Your task to perform on an android device: Open the map Image 0: 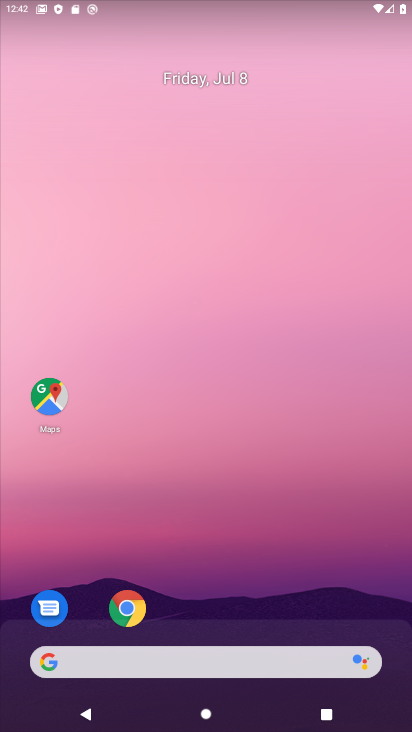
Step 0: click (51, 399)
Your task to perform on an android device: Open the map Image 1: 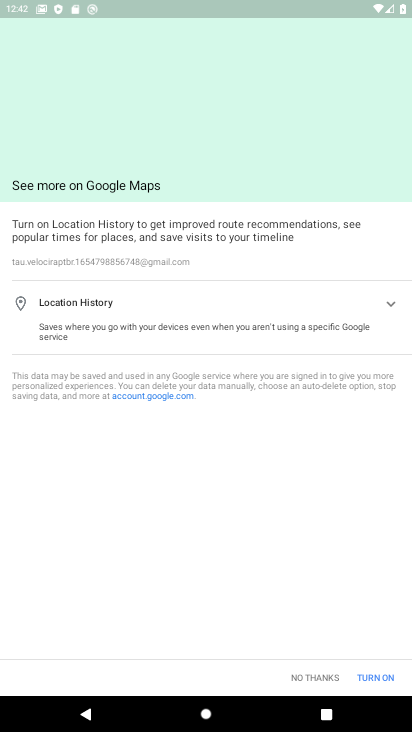
Step 1: press home button
Your task to perform on an android device: Open the map Image 2: 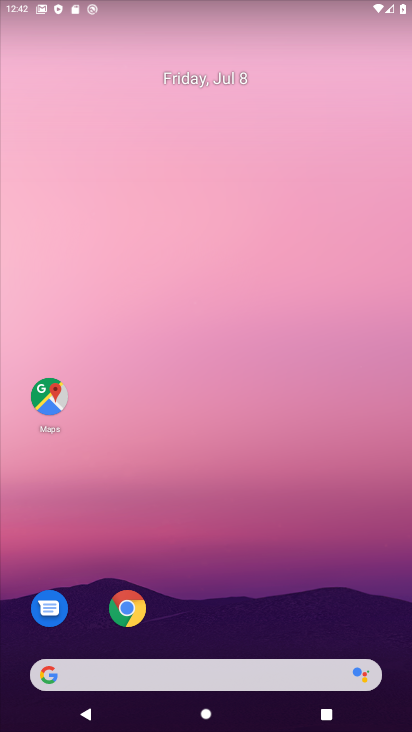
Step 2: click (48, 396)
Your task to perform on an android device: Open the map Image 3: 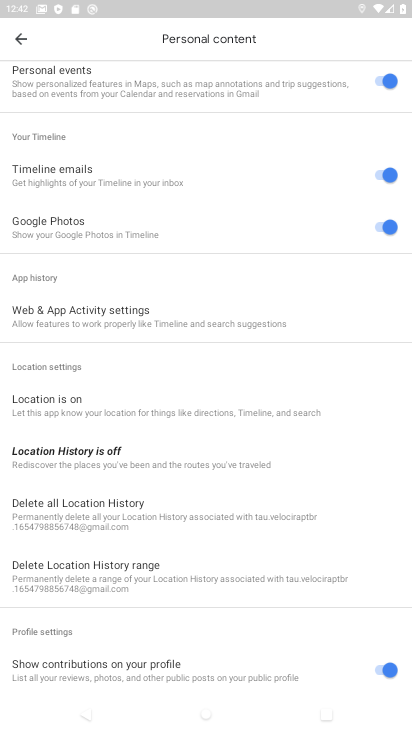
Step 3: task complete